Your task to perform on an android device: Go to CNN.com Image 0: 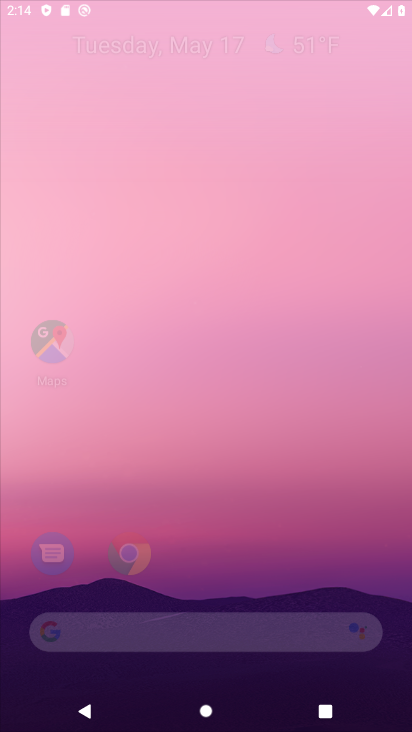
Step 0: press home button
Your task to perform on an android device: Go to CNN.com Image 1: 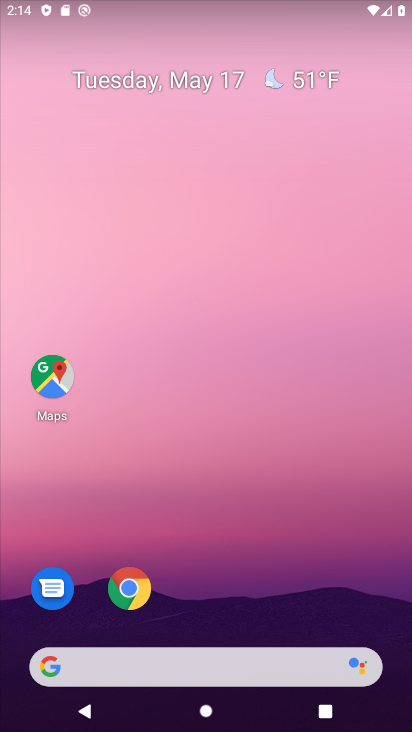
Step 1: click (140, 589)
Your task to perform on an android device: Go to CNN.com Image 2: 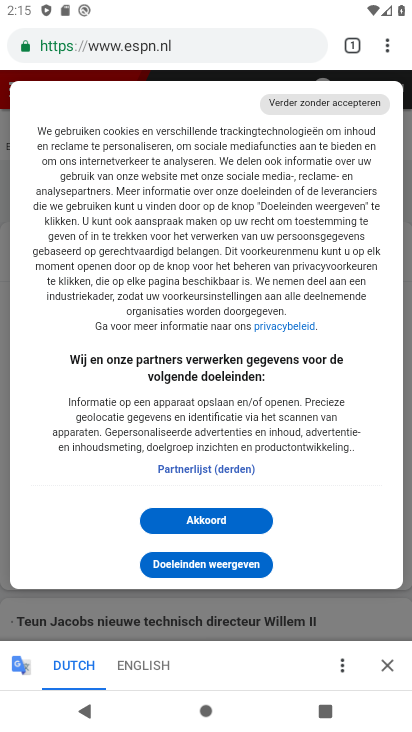
Step 2: click (224, 517)
Your task to perform on an android device: Go to CNN.com Image 3: 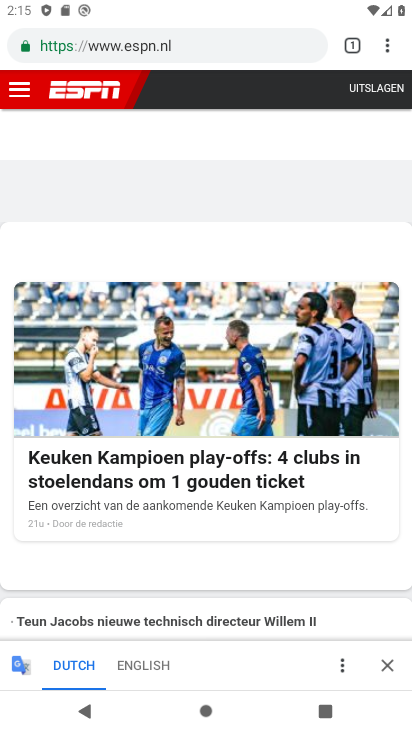
Step 3: click (348, 44)
Your task to perform on an android device: Go to CNN.com Image 4: 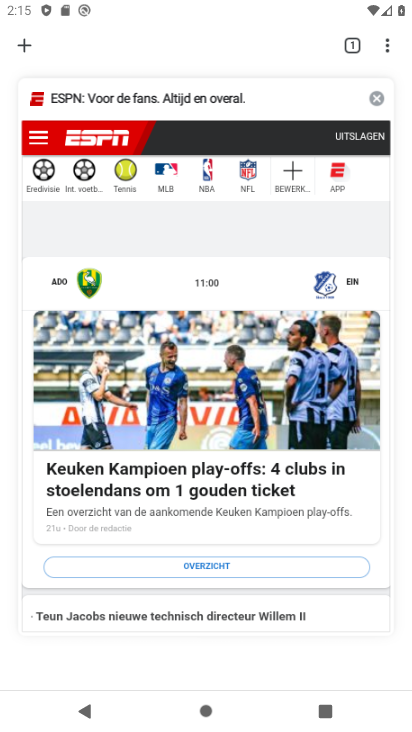
Step 4: click (27, 43)
Your task to perform on an android device: Go to CNN.com Image 5: 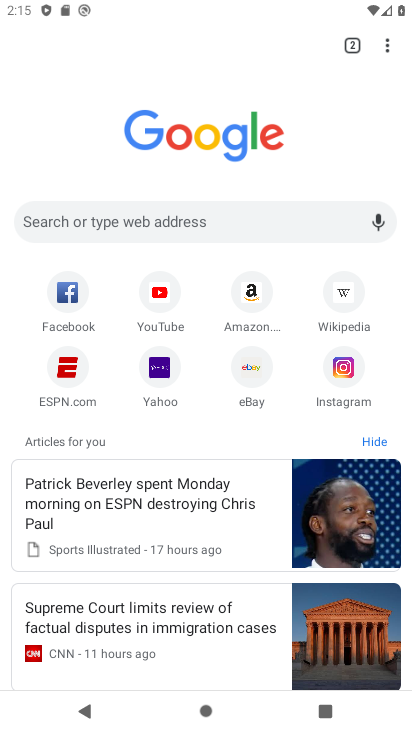
Step 5: click (190, 232)
Your task to perform on an android device: Go to CNN.com Image 6: 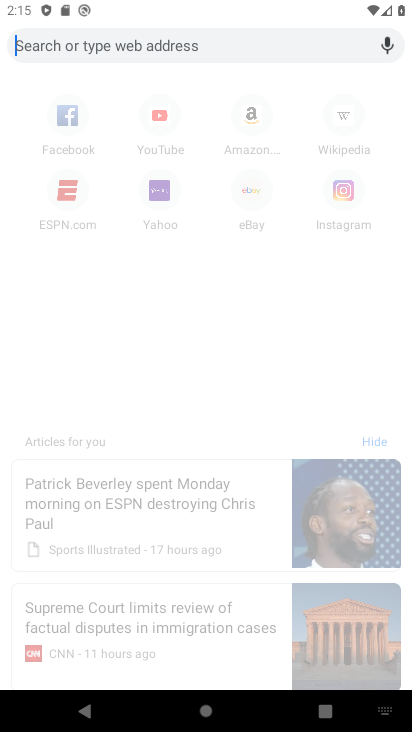
Step 6: type "CNN.com"
Your task to perform on an android device: Go to CNN.com Image 7: 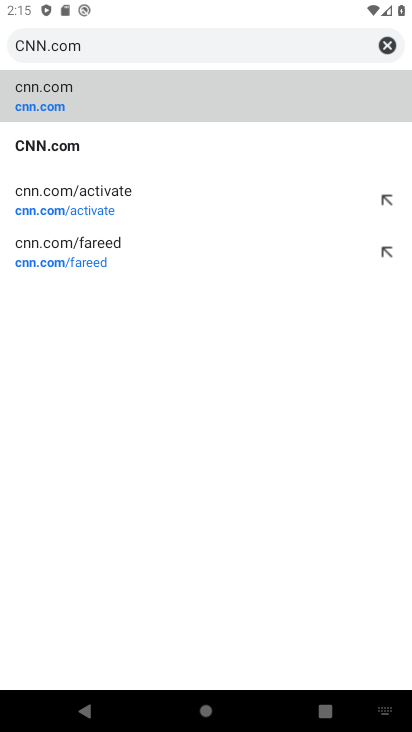
Step 7: click (162, 97)
Your task to perform on an android device: Go to CNN.com Image 8: 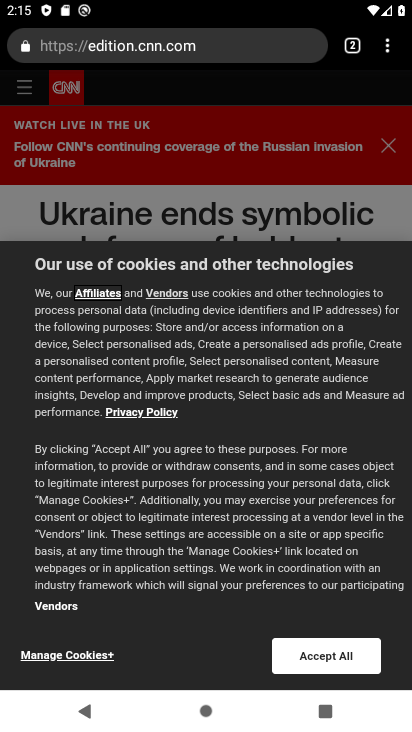
Step 8: task complete